Your task to perform on an android device: manage bookmarks in the chrome app Image 0: 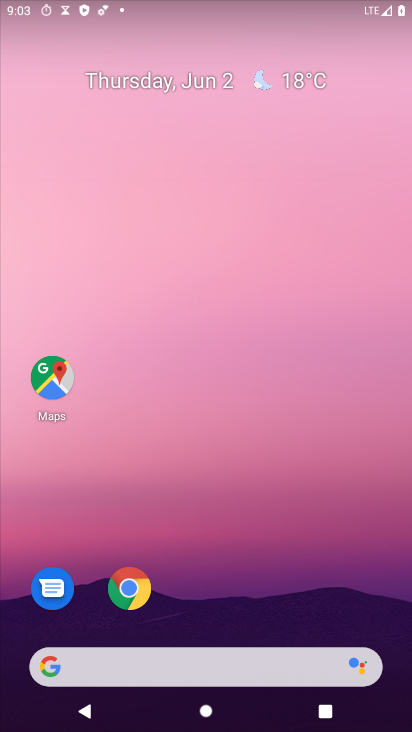
Step 0: click (127, 586)
Your task to perform on an android device: manage bookmarks in the chrome app Image 1: 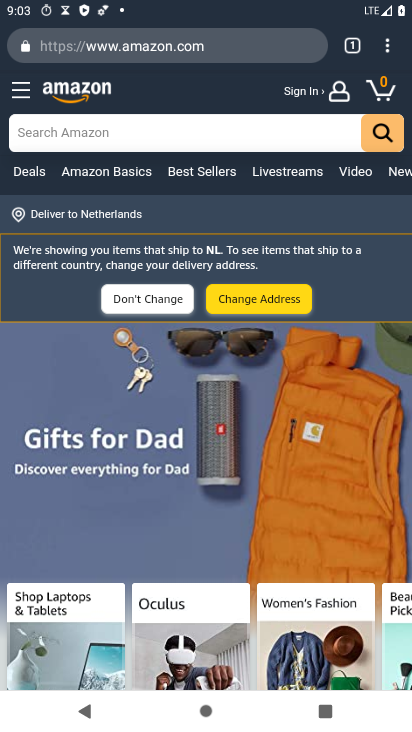
Step 1: drag from (388, 42) to (267, 170)
Your task to perform on an android device: manage bookmarks in the chrome app Image 2: 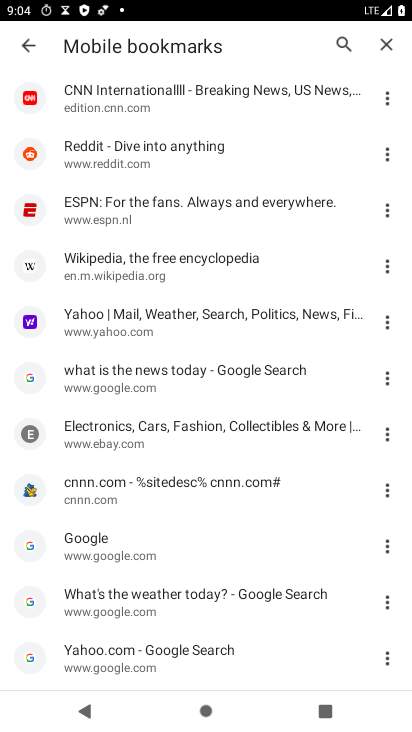
Step 2: click (388, 96)
Your task to perform on an android device: manage bookmarks in the chrome app Image 3: 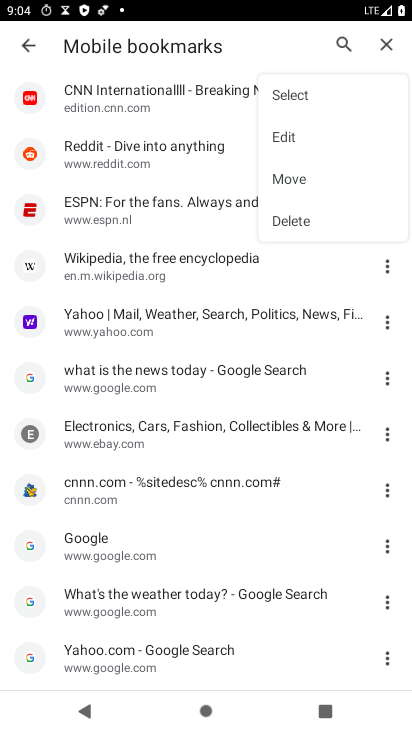
Step 3: click (280, 217)
Your task to perform on an android device: manage bookmarks in the chrome app Image 4: 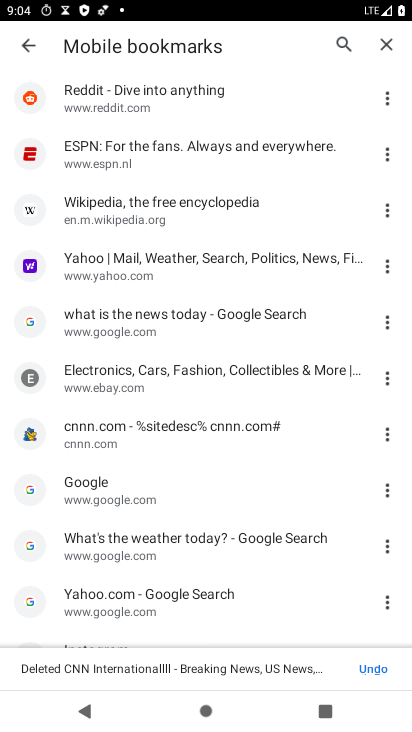
Step 4: task complete